Your task to perform on an android device: Open settings on Google Maps Image 0: 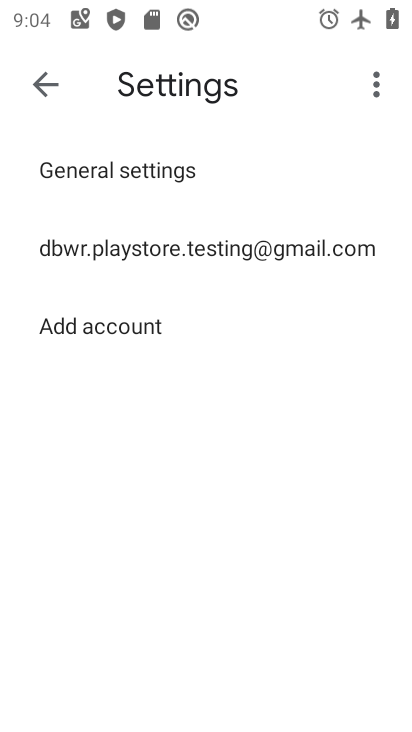
Step 0: press home button
Your task to perform on an android device: Open settings on Google Maps Image 1: 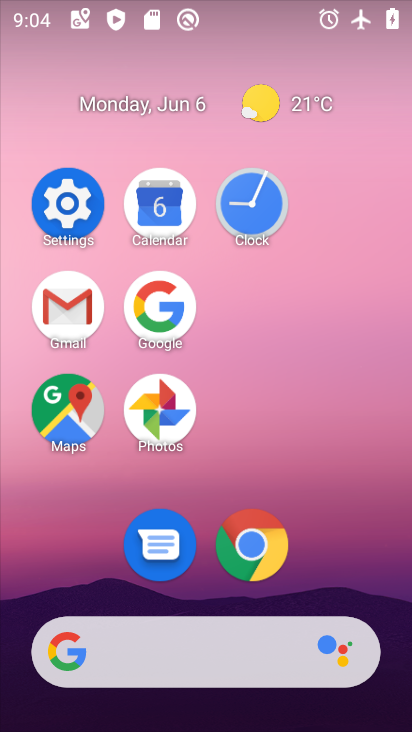
Step 1: click (81, 416)
Your task to perform on an android device: Open settings on Google Maps Image 2: 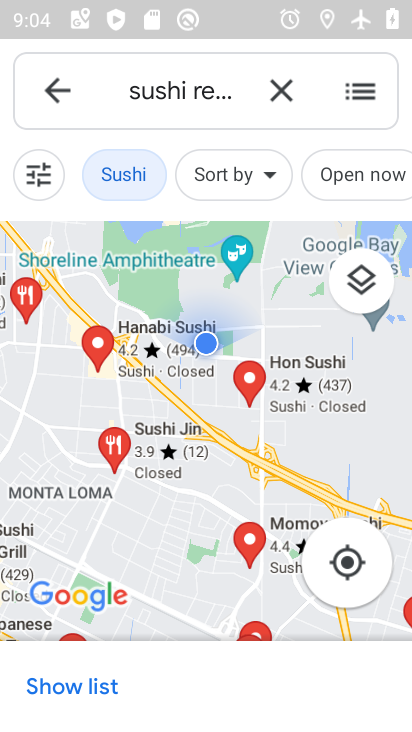
Step 2: task complete